Your task to perform on an android device: turn on javascript in the chrome app Image 0: 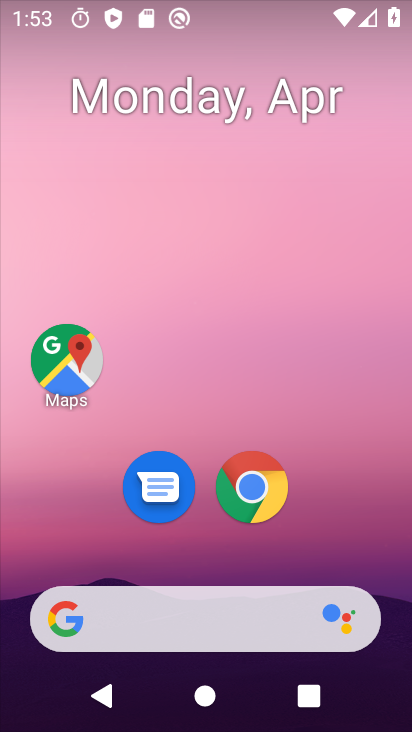
Step 0: drag from (303, 629) to (344, 171)
Your task to perform on an android device: turn on javascript in the chrome app Image 1: 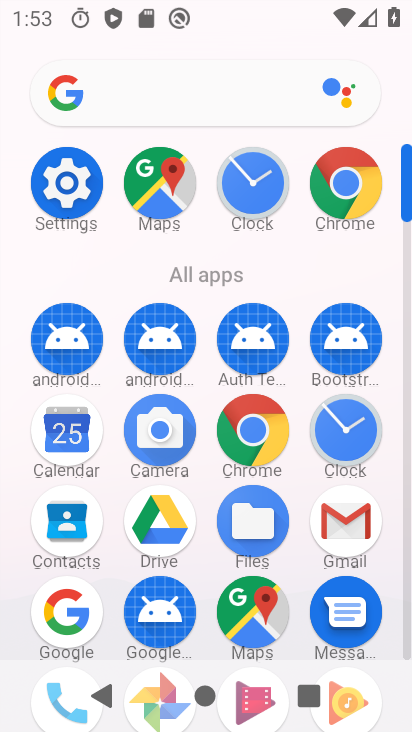
Step 1: click (246, 414)
Your task to perform on an android device: turn on javascript in the chrome app Image 2: 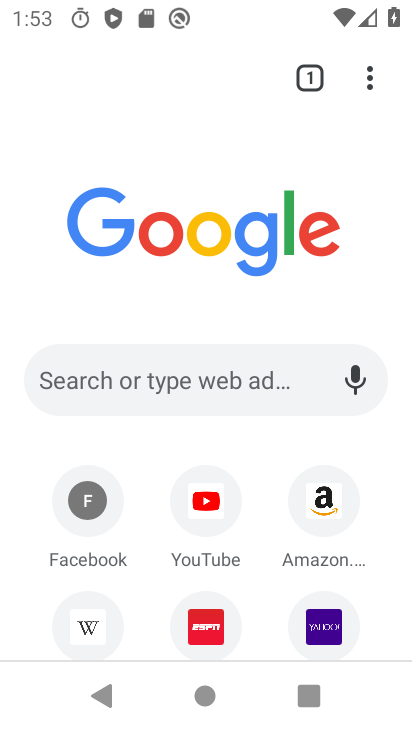
Step 2: click (369, 87)
Your task to perform on an android device: turn on javascript in the chrome app Image 3: 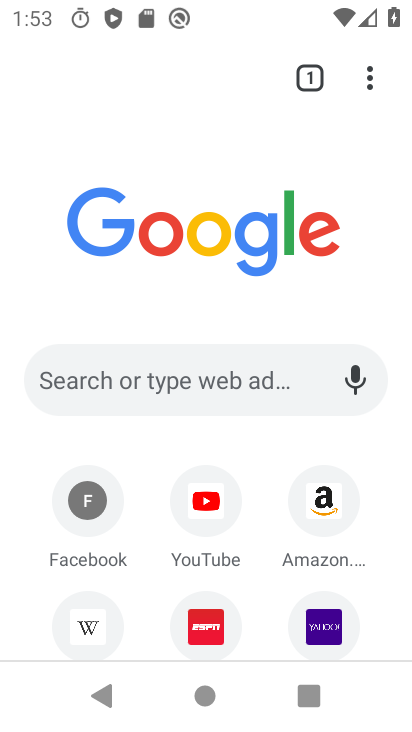
Step 3: click (367, 94)
Your task to perform on an android device: turn on javascript in the chrome app Image 4: 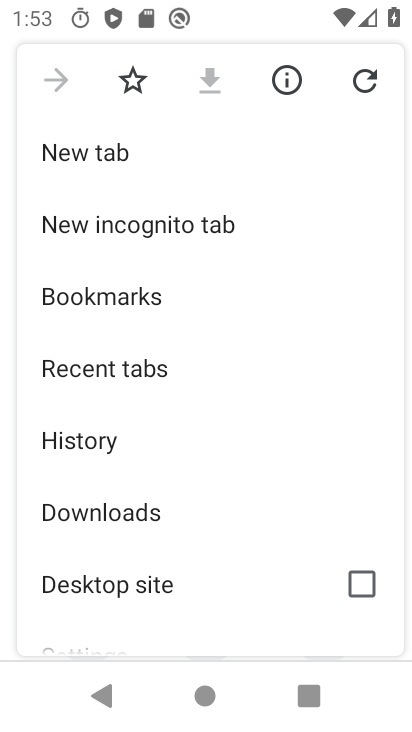
Step 4: click (95, 643)
Your task to perform on an android device: turn on javascript in the chrome app Image 5: 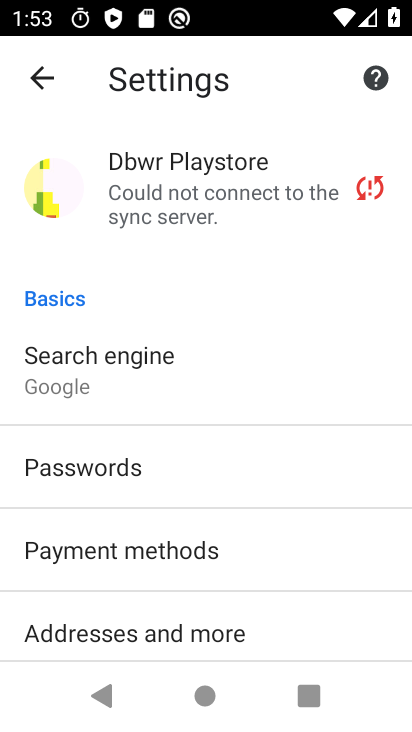
Step 5: drag from (114, 625) to (194, 294)
Your task to perform on an android device: turn on javascript in the chrome app Image 6: 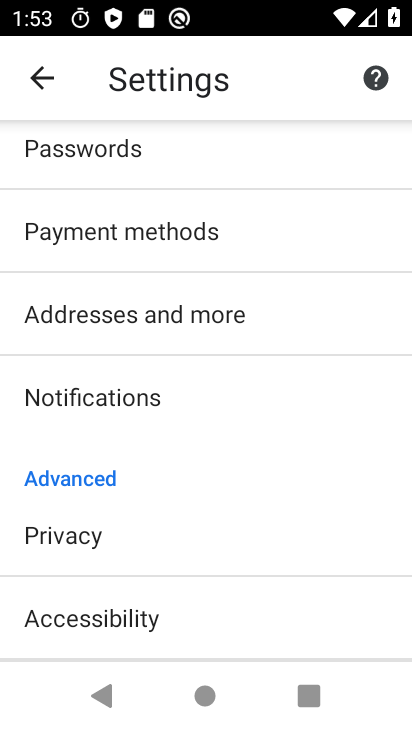
Step 6: drag from (225, 449) to (267, 190)
Your task to perform on an android device: turn on javascript in the chrome app Image 7: 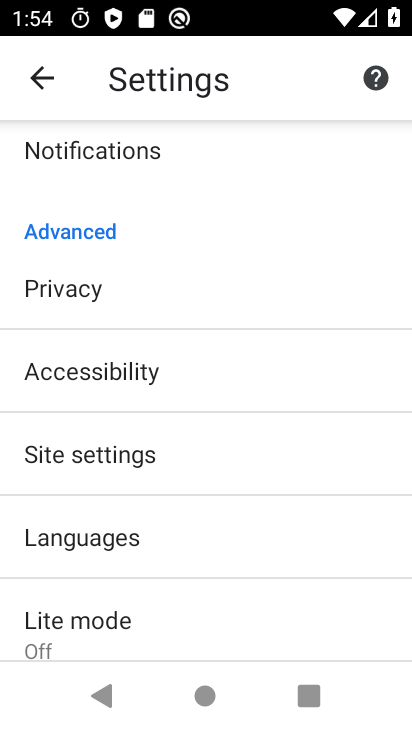
Step 7: click (145, 538)
Your task to perform on an android device: turn on javascript in the chrome app Image 8: 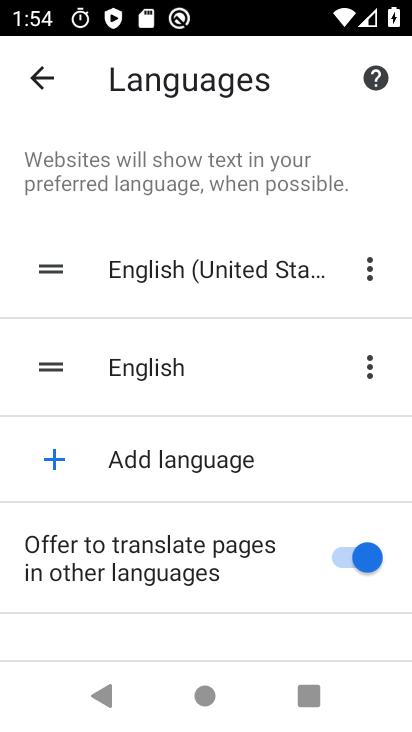
Step 8: click (209, 555)
Your task to perform on an android device: turn on javascript in the chrome app Image 9: 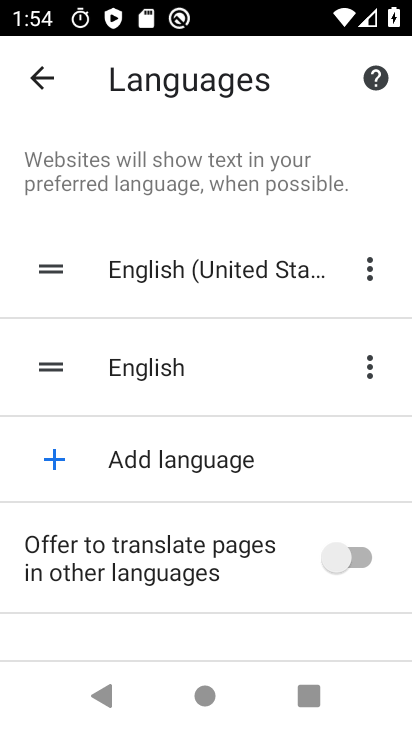
Step 9: click (209, 555)
Your task to perform on an android device: turn on javascript in the chrome app Image 10: 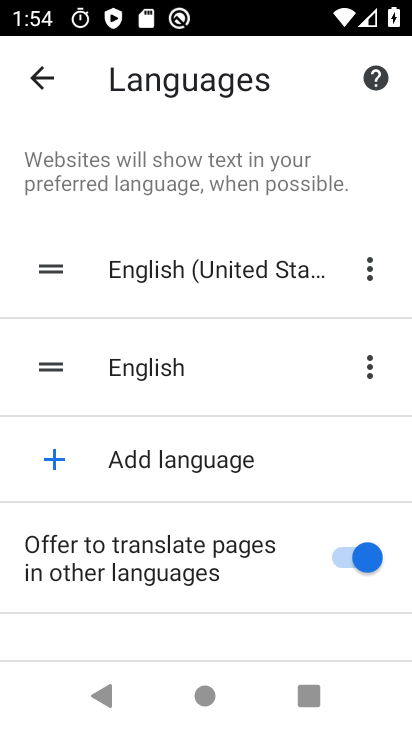
Step 10: task complete